Your task to perform on an android device: change timer sound Image 0: 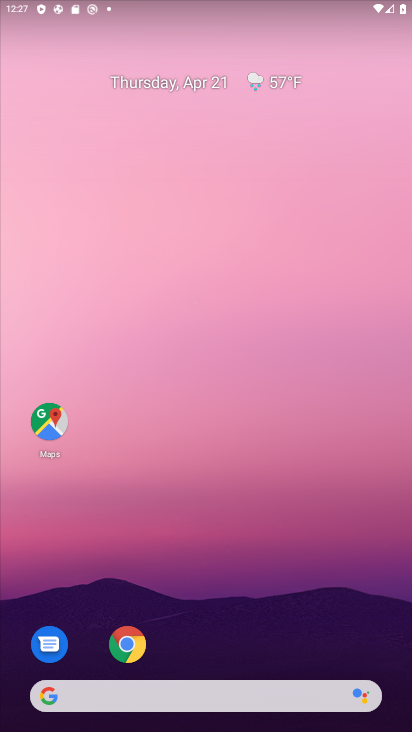
Step 0: drag from (216, 680) to (250, 33)
Your task to perform on an android device: change timer sound Image 1: 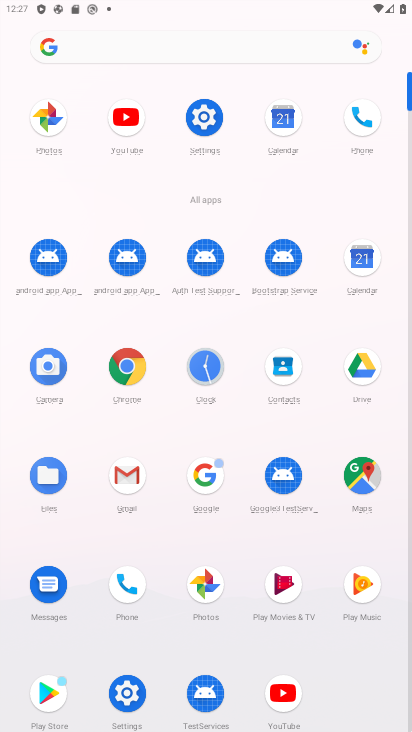
Step 1: click (206, 369)
Your task to perform on an android device: change timer sound Image 2: 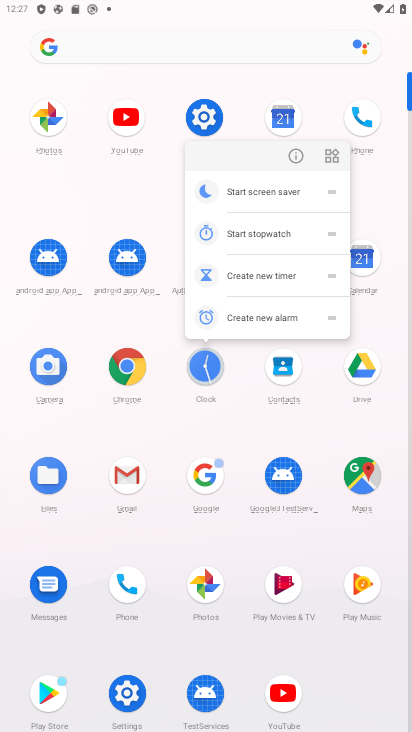
Step 2: click (206, 369)
Your task to perform on an android device: change timer sound Image 3: 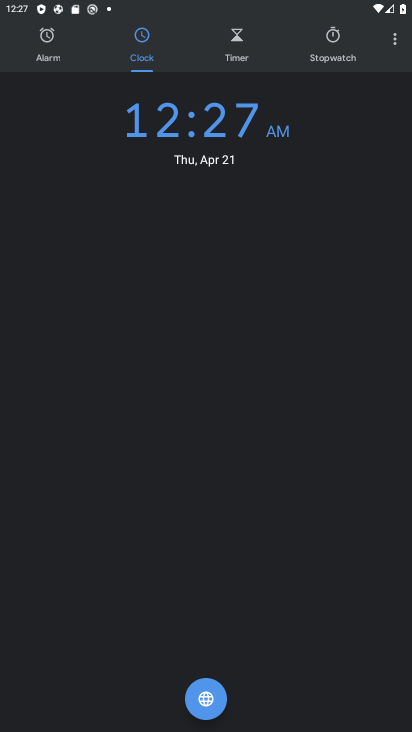
Step 3: click (386, 53)
Your task to perform on an android device: change timer sound Image 4: 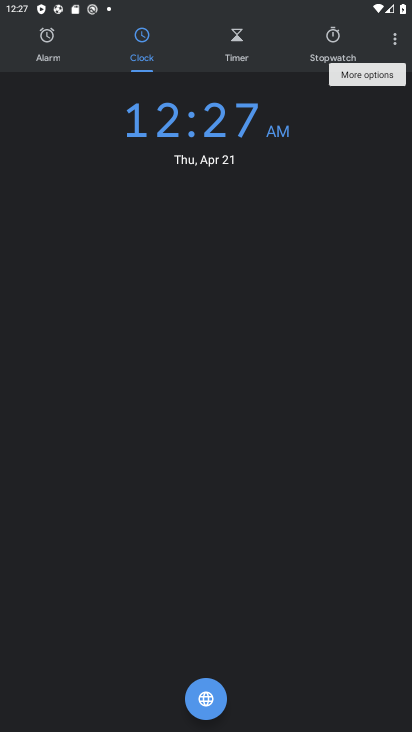
Step 4: click (381, 75)
Your task to perform on an android device: change timer sound Image 5: 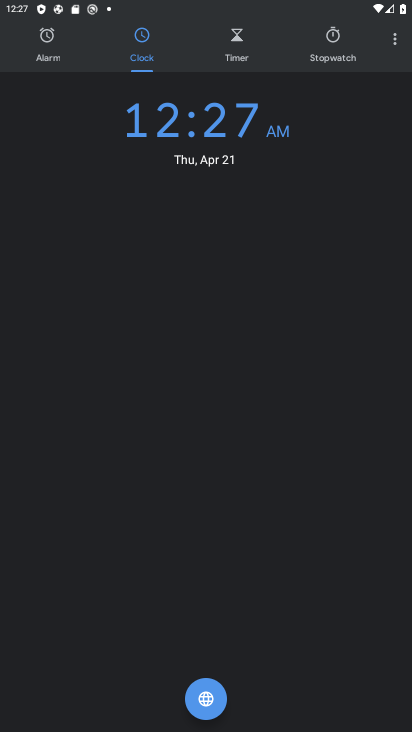
Step 5: click (395, 45)
Your task to perform on an android device: change timer sound Image 6: 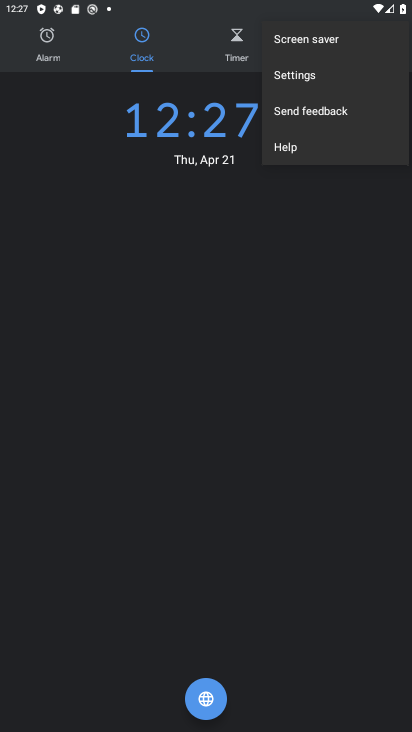
Step 6: click (320, 69)
Your task to perform on an android device: change timer sound Image 7: 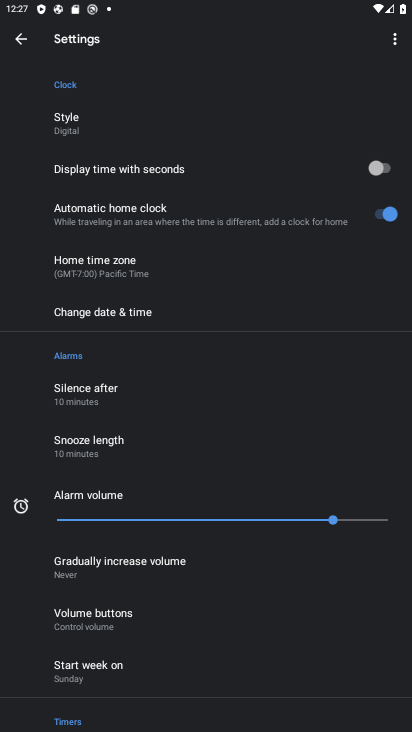
Step 7: drag from (164, 437) to (153, 127)
Your task to perform on an android device: change timer sound Image 8: 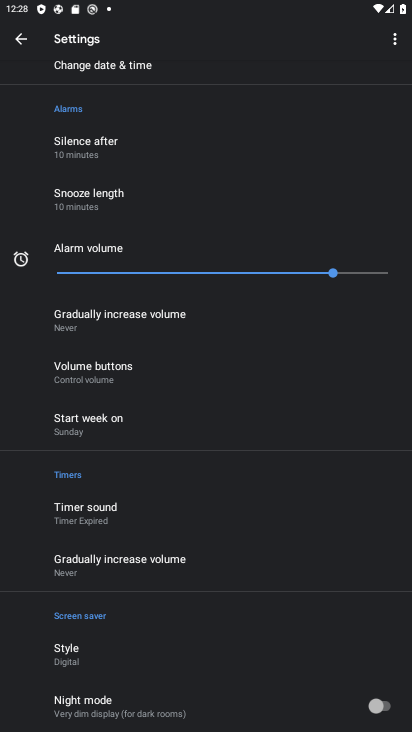
Step 8: click (118, 525)
Your task to perform on an android device: change timer sound Image 9: 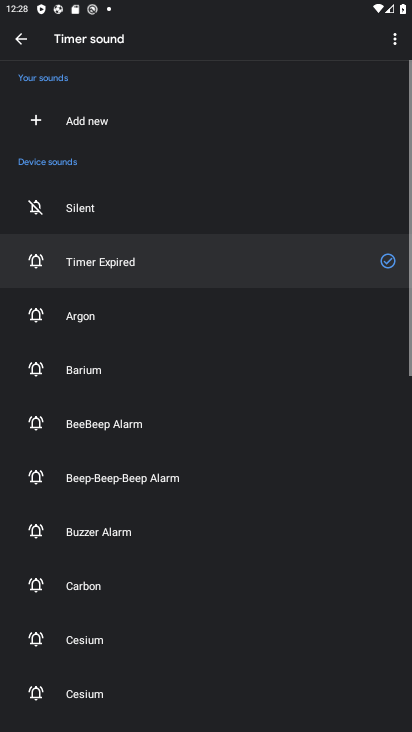
Step 9: click (74, 318)
Your task to perform on an android device: change timer sound Image 10: 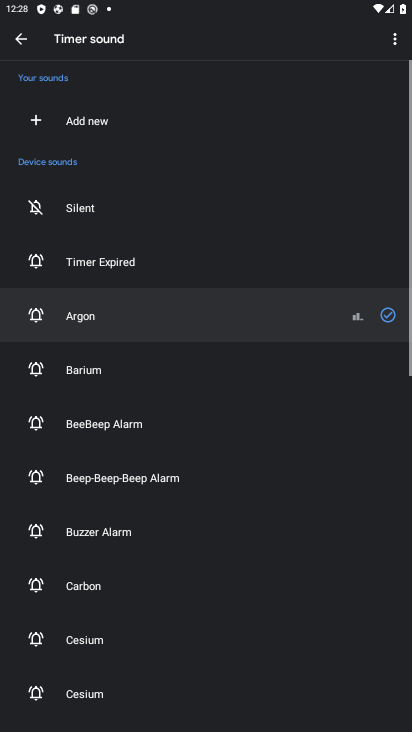
Step 10: task complete